Your task to perform on an android device: change notification settings in the gmail app Image 0: 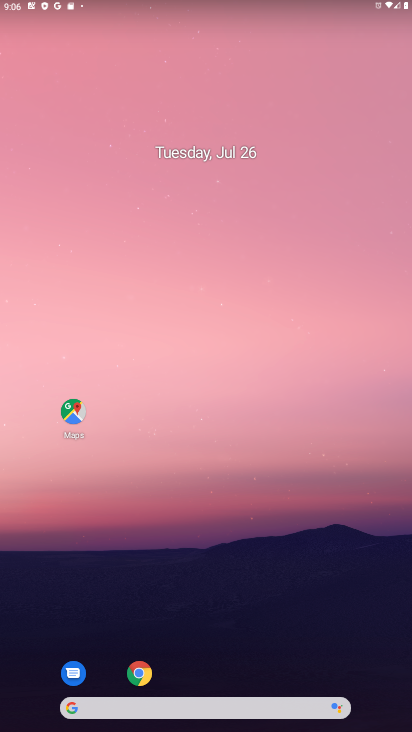
Step 0: drag from (303, 692) to (299, 56)
Your task to perform on an android device: change notification settings in the gmail app Image 1: 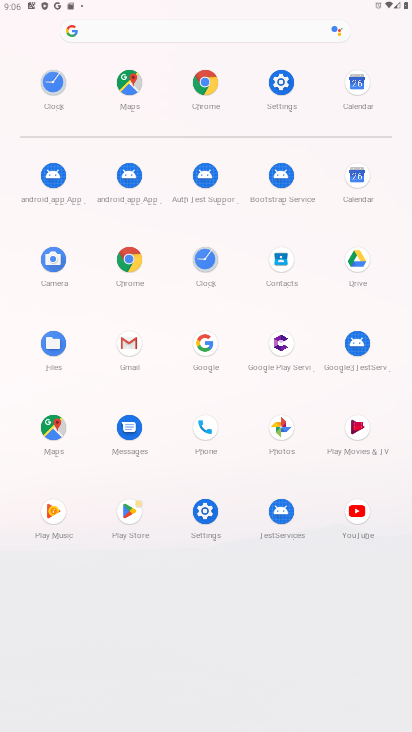
Step 1: click (128, 351)
Your task to perform on an android device: change notification settings in the gmail app Image 2: 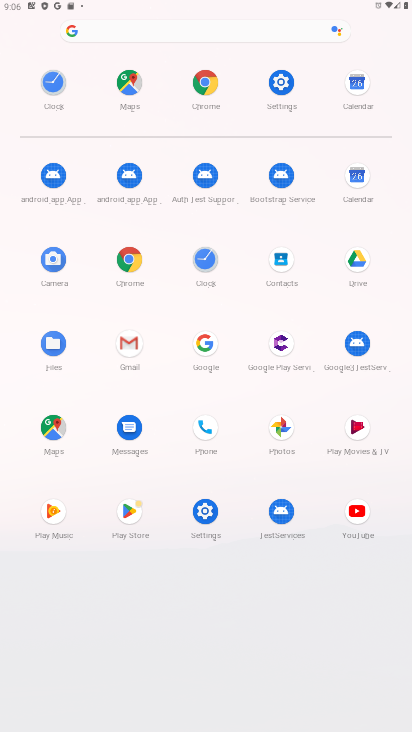
Step 2: click (130, 353)
Your task to perform on an android device: change notification settings in the gmail app Image 3: 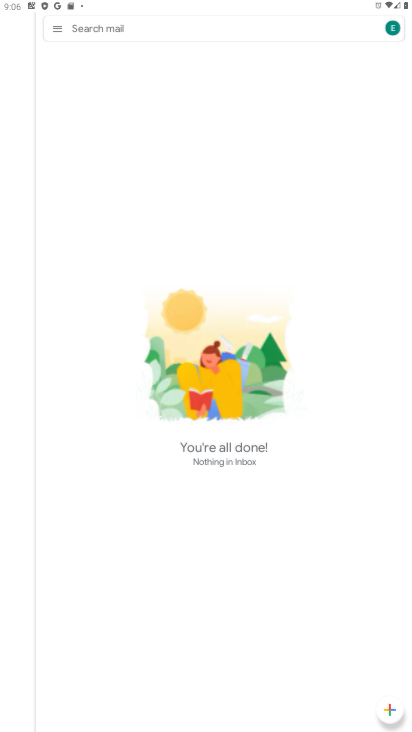
Step 3: click (131, 347)
Your task to perform on an android device: change notification settings in the gmail app Image 4: 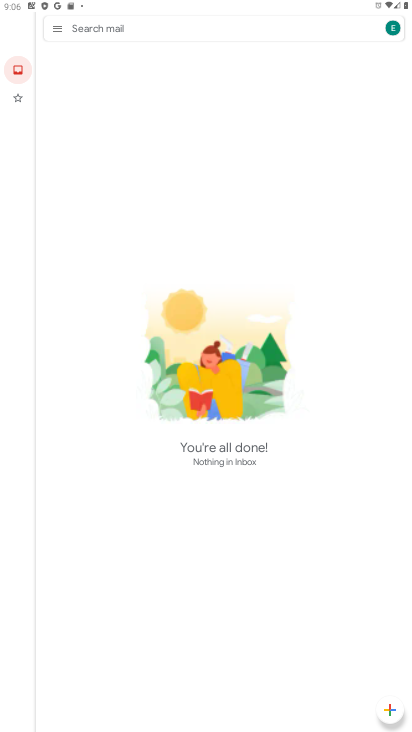
Step 4: click (132, 346)
Your task to perform on an android device: change notification settings in the gmail app Image 5: 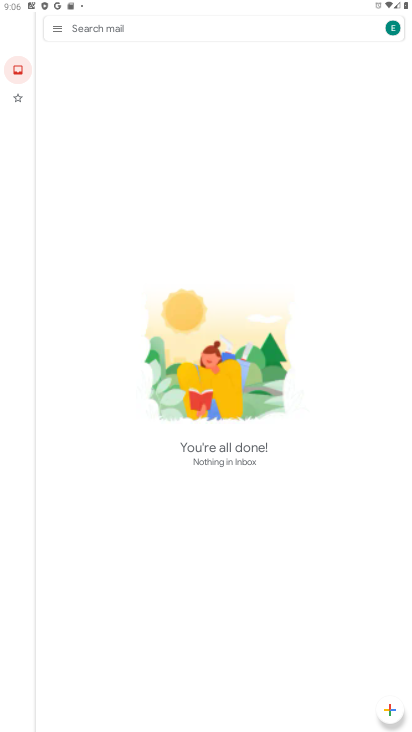
Step 5: click (63, 31)
Your task to perform on an android device: change notification settings in the gmail app Image 6: 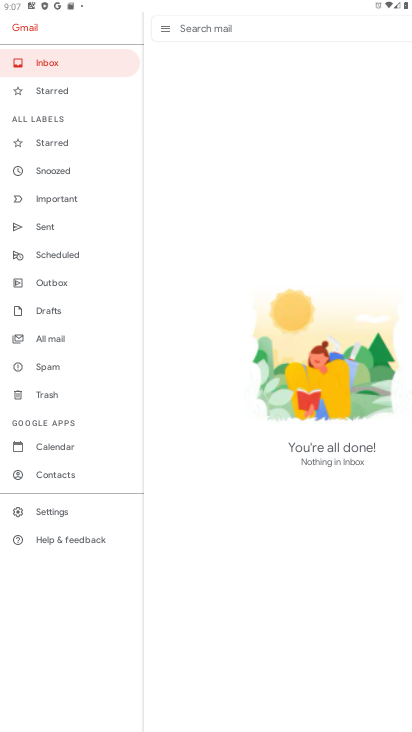
Step 6: press back button
Your task to perform on an android device: change notification settings in the gmail app Image 7: 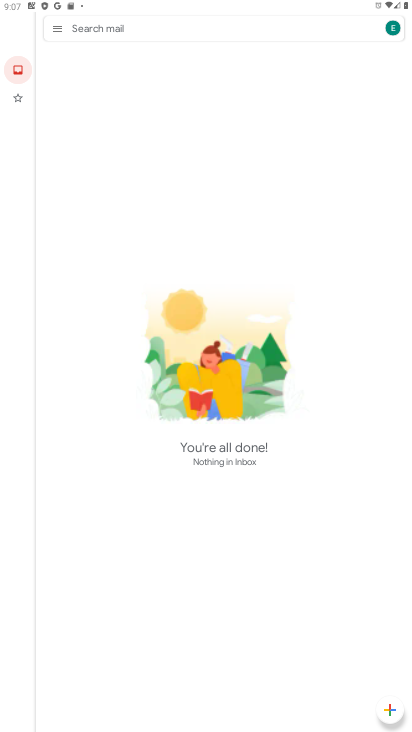
Step 7: click (52, 19)
Your task to perform on an android device: change notification settings in the gmail app Image 8: 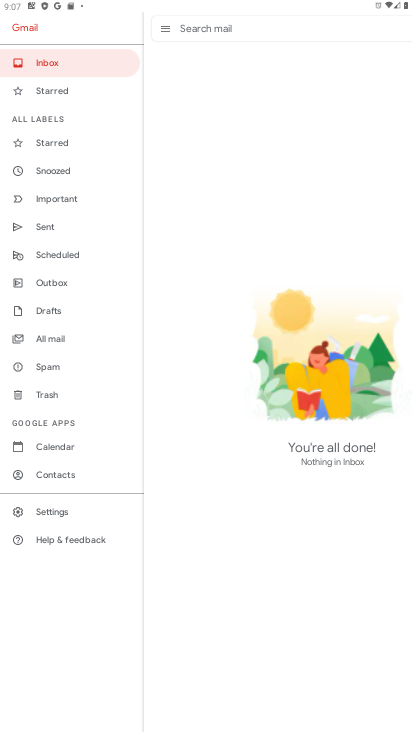
Step 8: click (44, 518)
Your task to perform on an android device: change notification settings in the gmail app Image 9: 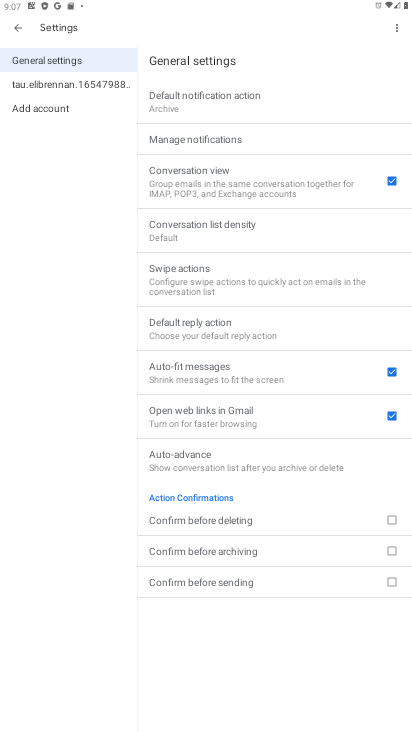
Step 9: click (58, 83)
Your task to perform on an android device: change notification settings in the gmail app Image 10: 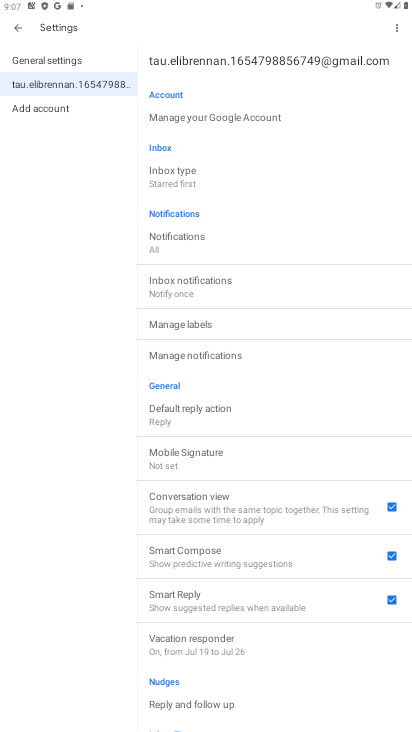
Step 10: click (161, 233)
Your task to perform on an android device: change notification settings in the gmail app Image 11: 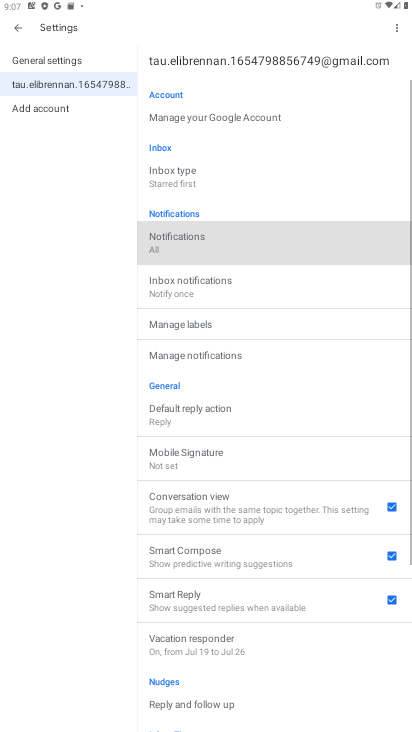
Step 11: click (161, 233)
Your task to perform on an android device: change notification settings in the gmail app Image 12: 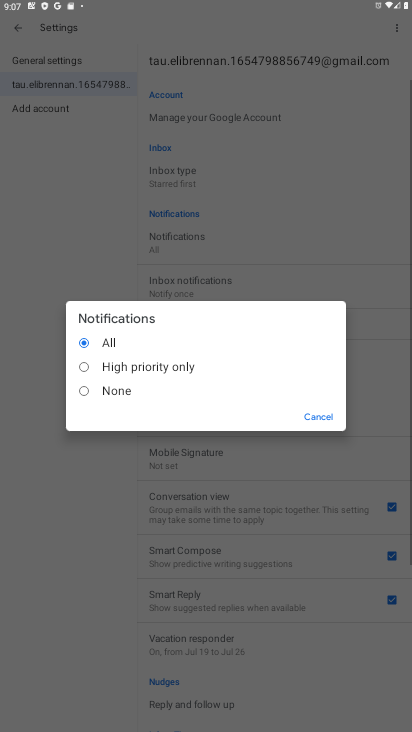
Step 12: click (161, 233)
Your task to perform on an android device: change notification settings in the gmail app Image 13: 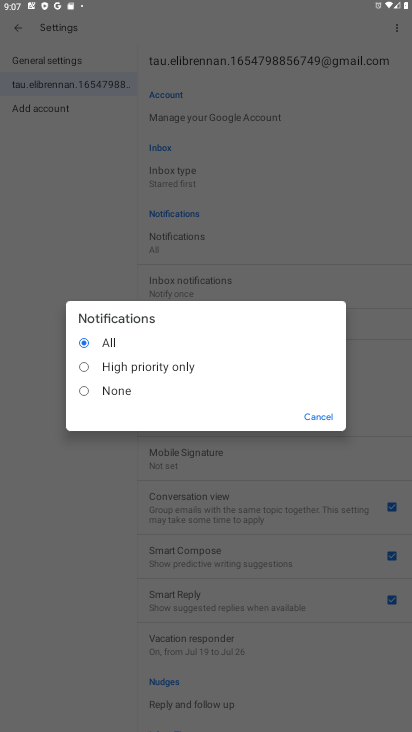
Step 13: click (327, 417)
Your task to perform on an android device: change notification settings in the gmail app Image 14: 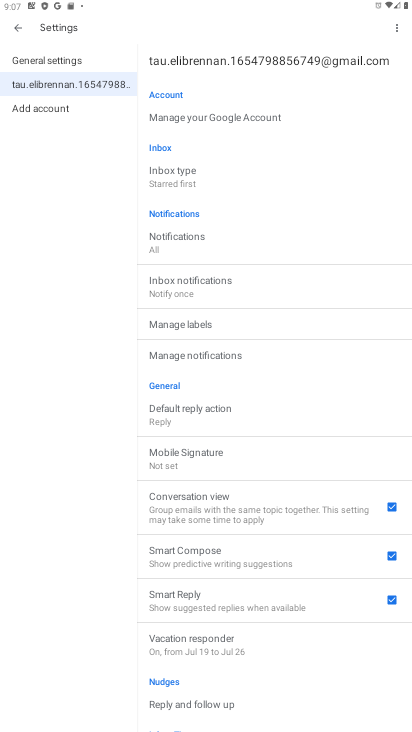
Step 14: click (172, 232)
Your task to perform on an android device: change notification settings in the gmail app Image 15: 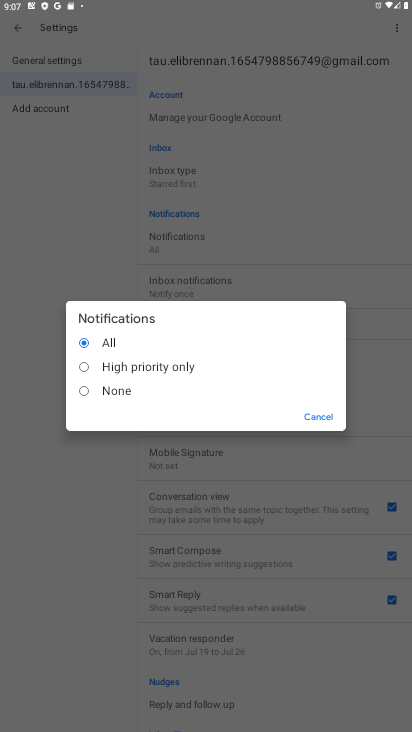
Step 15: click (85, 363)
Your task to perform on an android device: change notification settings in the gmail app Image 16: 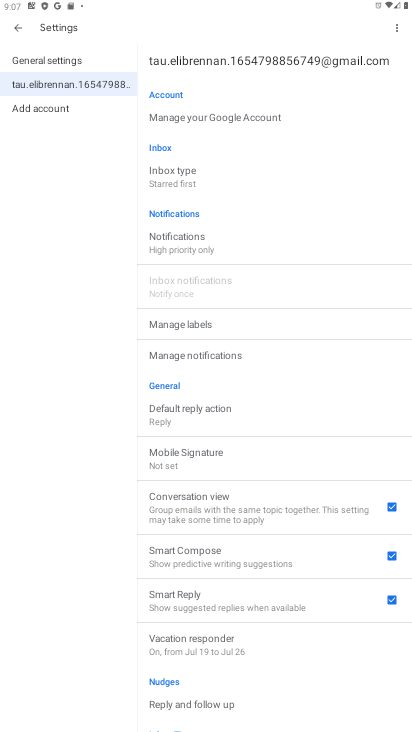
Step 16: task complete